Your task to perform on an android device: Go to battery settings Image 0: 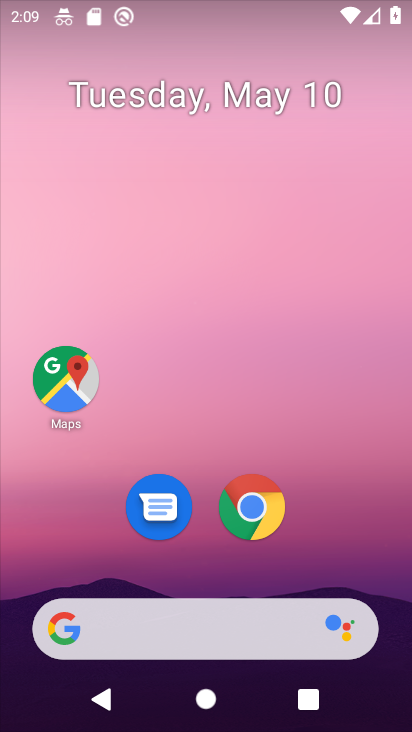
Step 0: drag from (235, 517) to (246, 226)
Your task to perform on an android device: Go to battery settings Image 1: 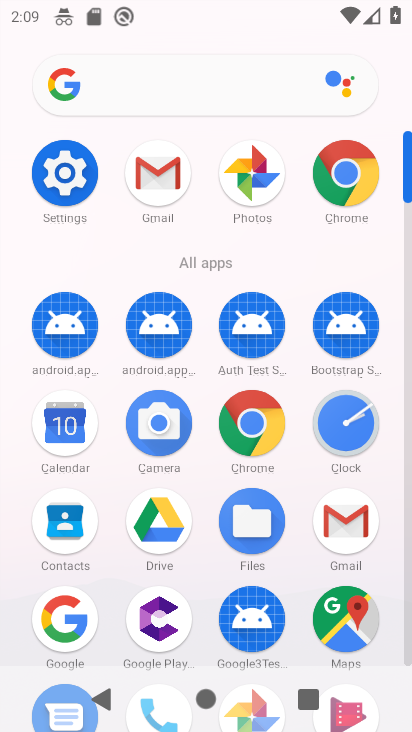
Step 1: drag from (204, 602) to (206, 279)
Your task to perform on an android device: Go to battery settings Image 2: 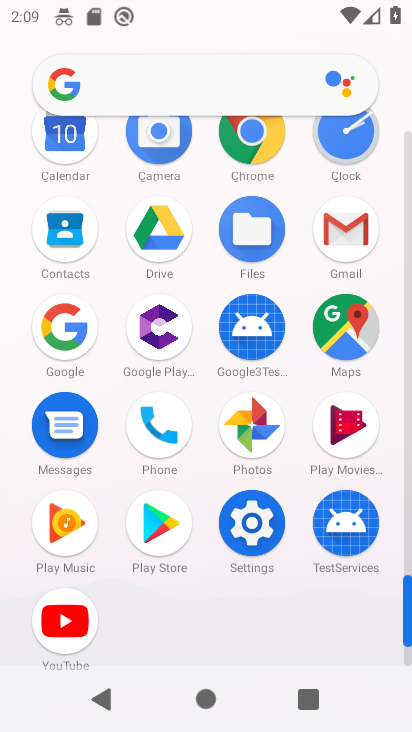
Step 2: click (254, 529)
Your task to perform on an android device: Go to battery settings Image 3: 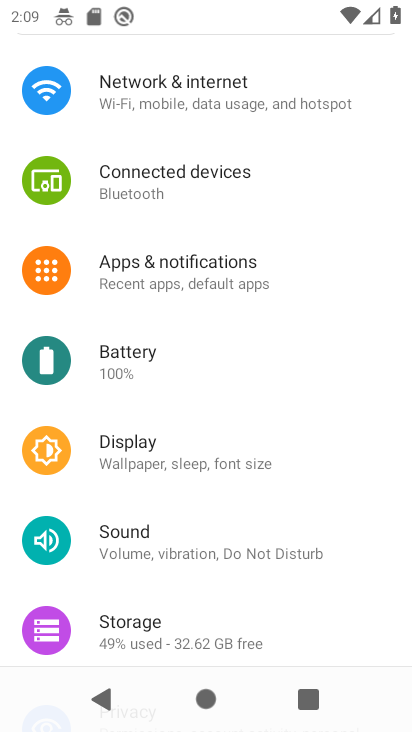
Step 3: click (152, 371)
Your task to perform on an android device: Go to battery settings Image 4: 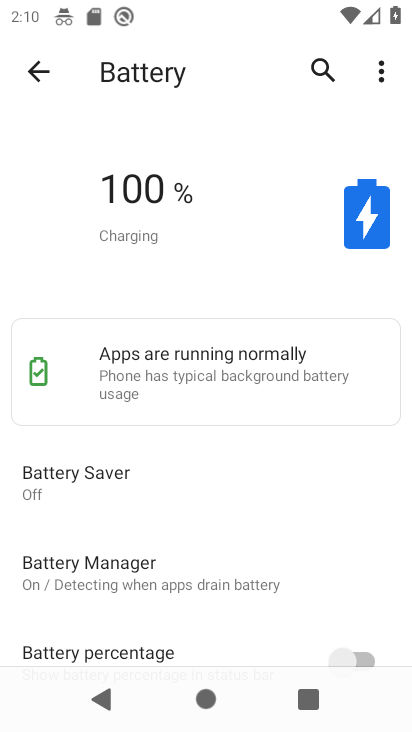
Step 4: task complete